Your task to perform on an android device: change the clock style Image 0: 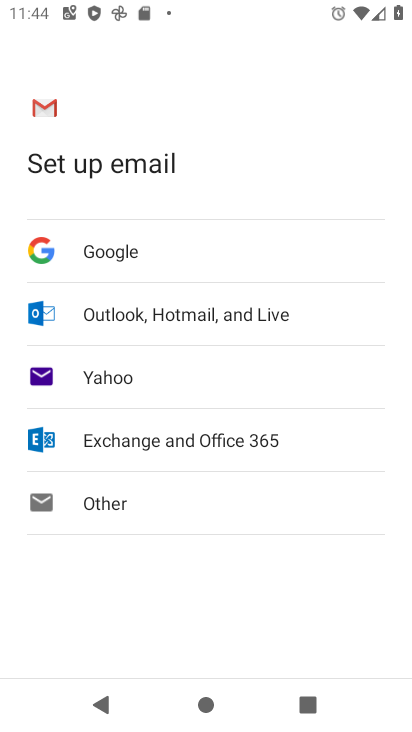
Step 0: press home button
Your task to perform on an android device: change the clock style Image 1: 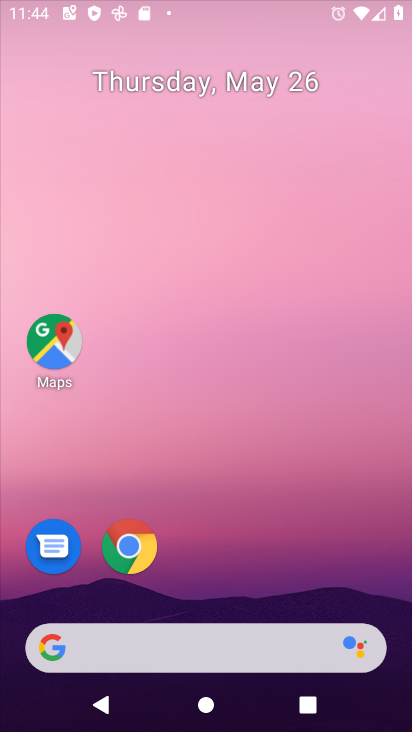
Step 1: drag from (213, 468) to (183, 140)
Your task to perform on an android device: change the clock style Image 2: 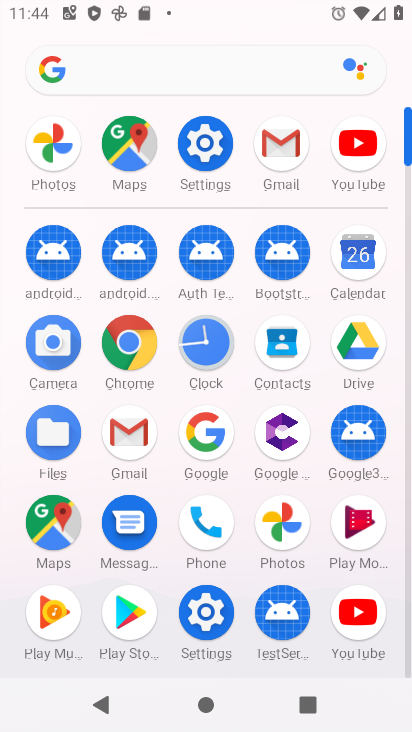
Step 2: click (212, 344)
Your task to perform on an android device: change the clock style Image 3: 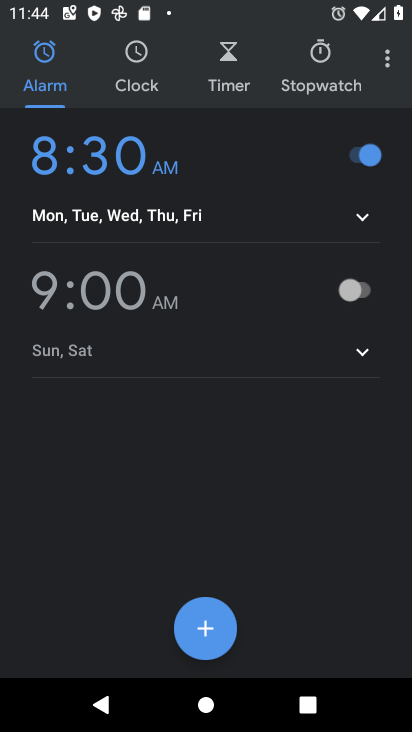
Step 3: click (374, 53)
Your task to perform on an android device: change the clock style Image 4: 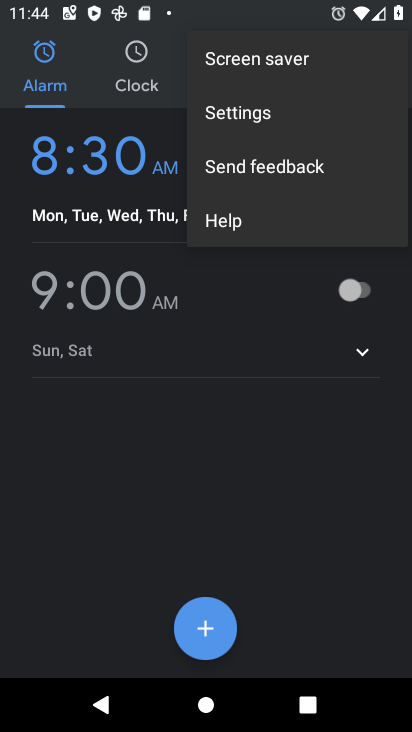
Step 4: click (268, 124)
Your task to perform on an android device: change the clock style Image 5: 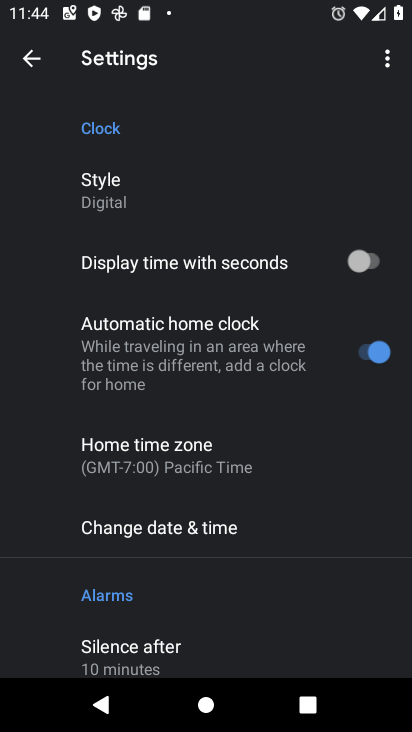
Step 5: click (185, 187)
Your task to perform on an android device: change the clock style Image 6: 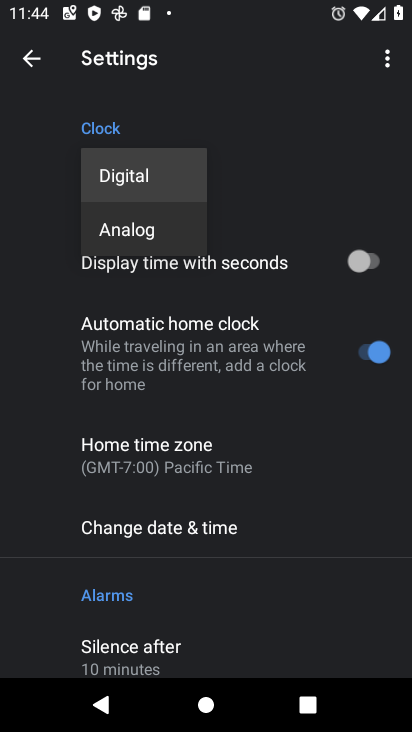
Step 6: click (123, 240)
Your task to perform on an android device: change the clock style Image 7: 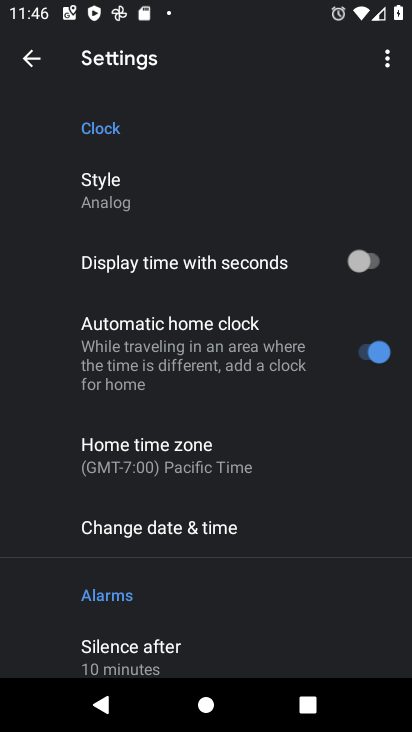
Step 7: task complete